Your task to perform on an android device: Do I have any events tomorrow? Image 0: 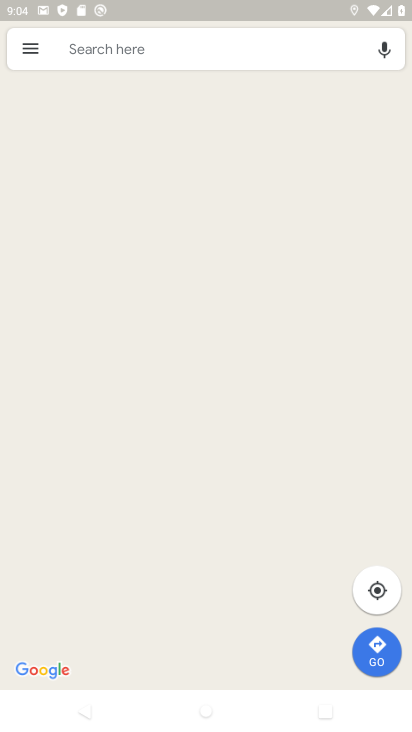
Step 0: click (294, 13)
Your task to perform on an android device: Do I have any events tomorrow? Image 1: 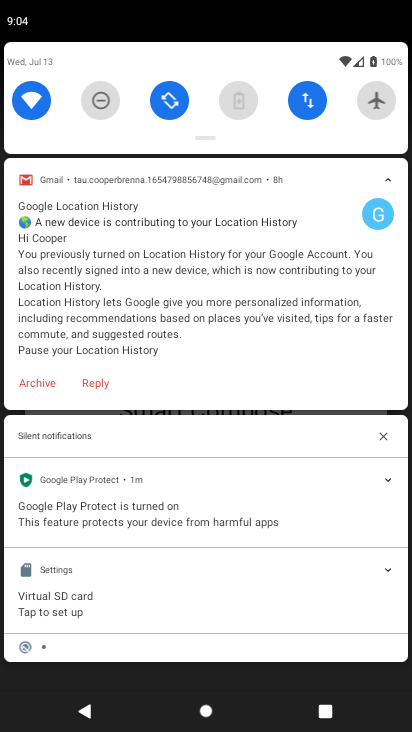
Step 1: press back button
Your task to perform on an android device: Do I have any events tomorrow? Image 2: 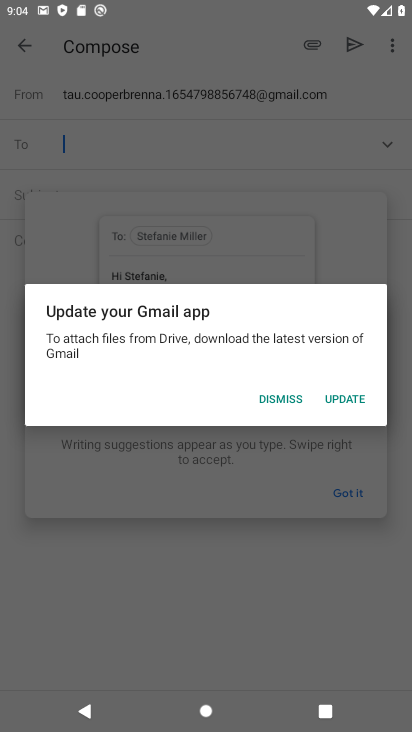
Step 2: press home button
Your task to perform on an android device: Do I have any events tomorrow? Image 3: 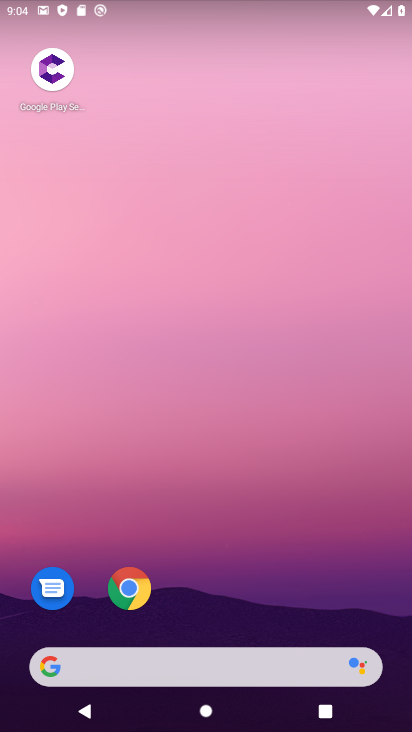
Step 3: drag from (231, 495) to (286, 2)
Your task to perform on an android device: Do I have any events tomorrow? Image 4: 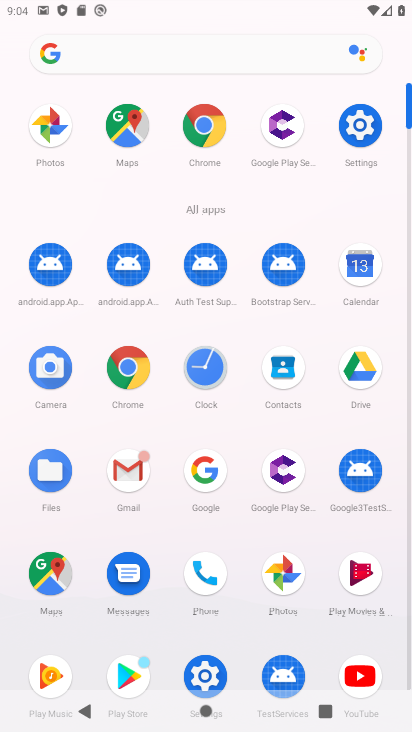
Step 4: click (356, 265)
Your task to perform on an android device: Do I have any events tomorrow? Image 5: 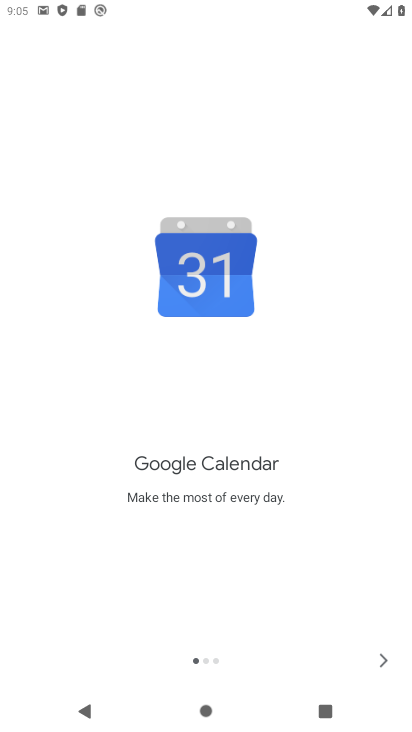
Step 5: click (370, 666)
Your task to perform on an android device: Do I have any events tomorrow? Image 6: 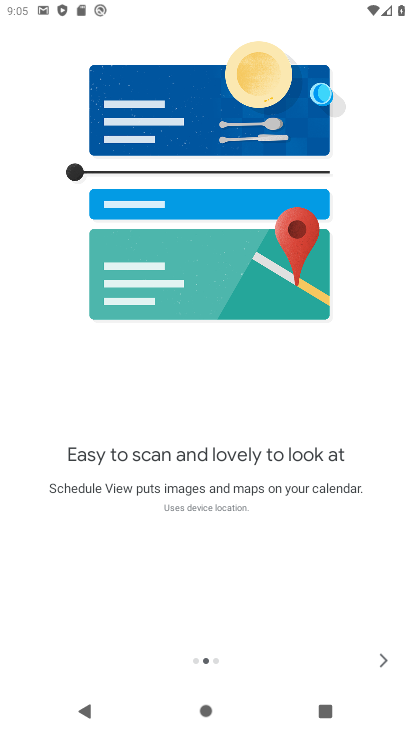
Step 6: click (372, 661)
Your task to perform on an android device: Do I have any events tomorrow? Image 7: 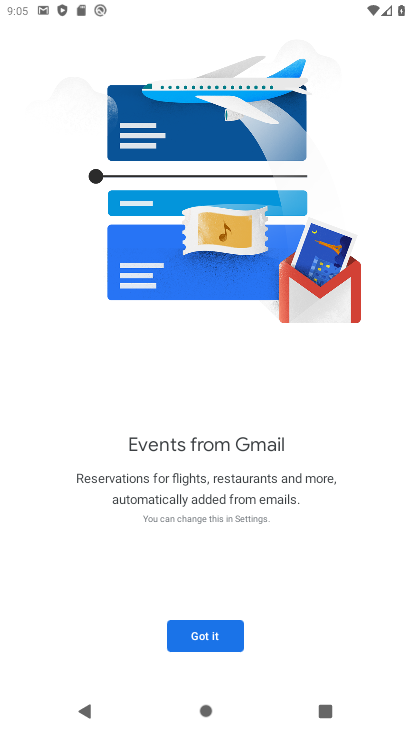
Step 7: click (239, 631)
Your task to perform on an android device: Do I have any events tomorrow? Image 8: 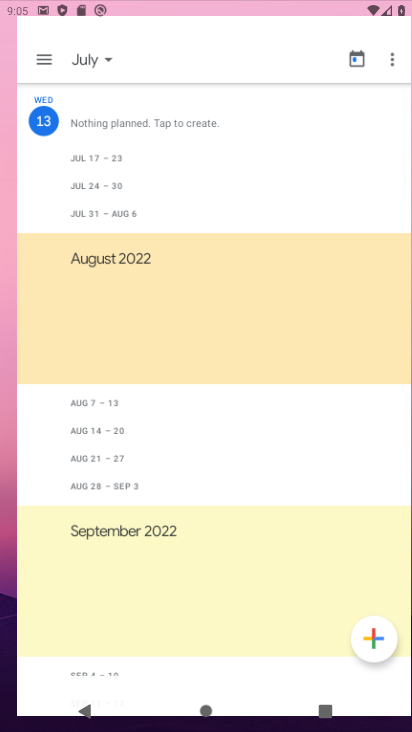
Step 8: click (199, 641)
Your task to perform on an android device: Do I have any events tomorrow? Image 9: 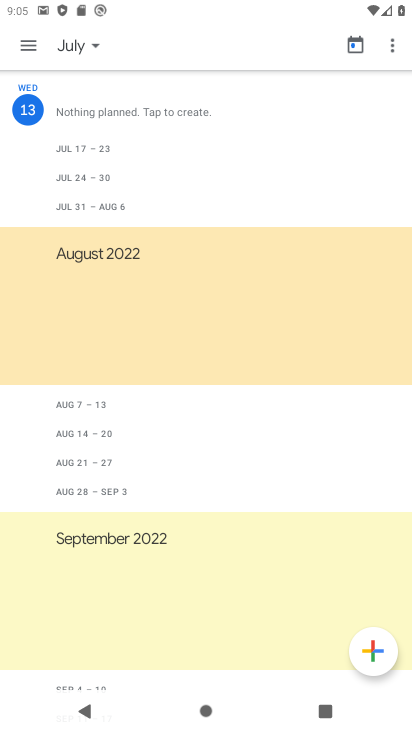
Step 9: task complete